Your task to perform on an android device: toggle translation in the chrome app Image 0: 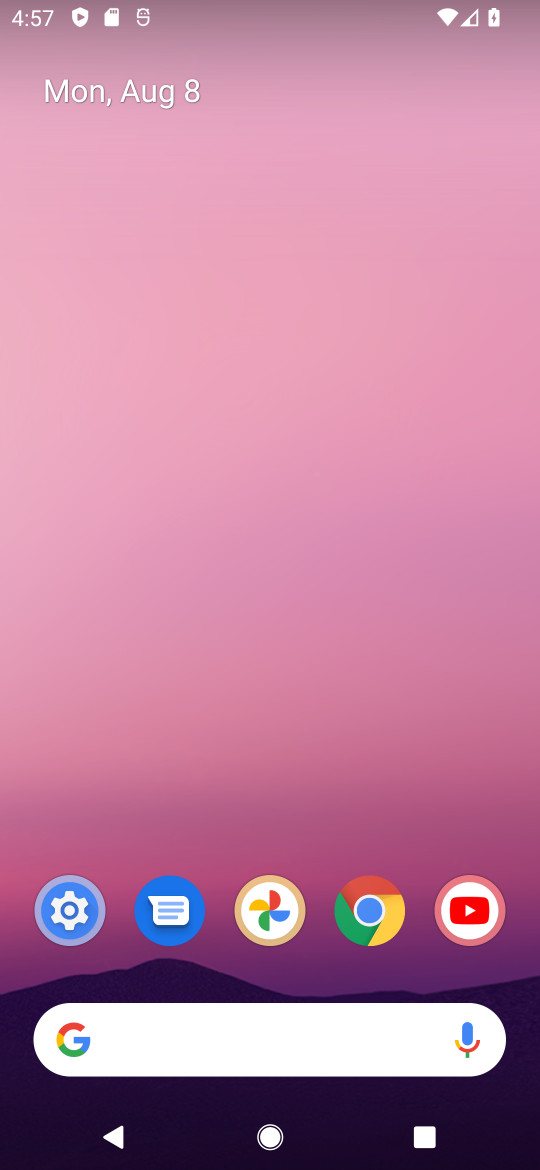
Step 0: click (372, 910)
Your task to perform on an android device: toggle translation in the chrome app Image 1: 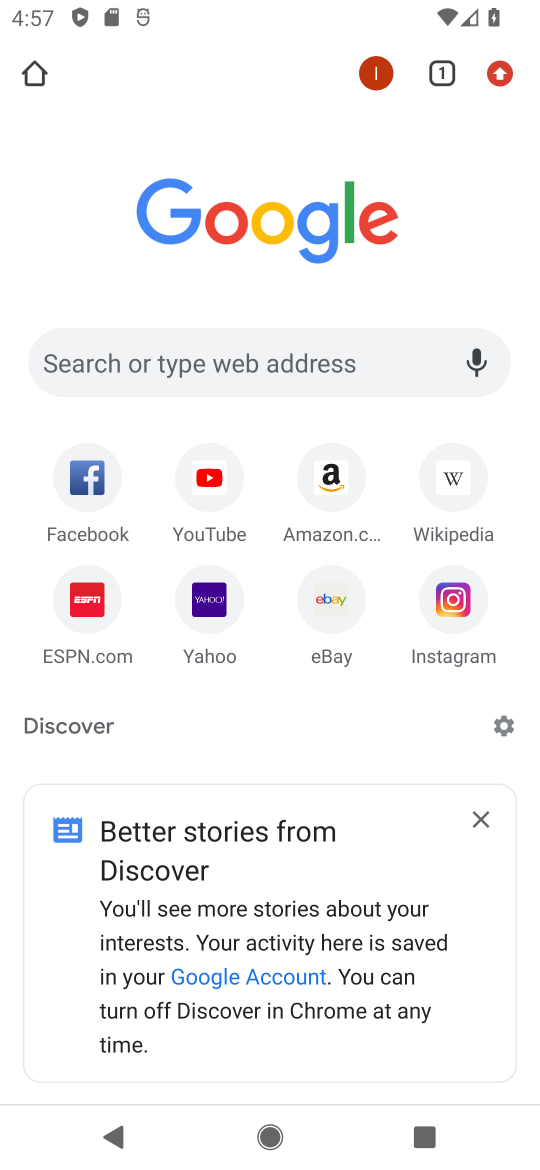
Step 1: click (496, 75)
Your task to perform on an android device: toggle translation in the chrome app Image 2: 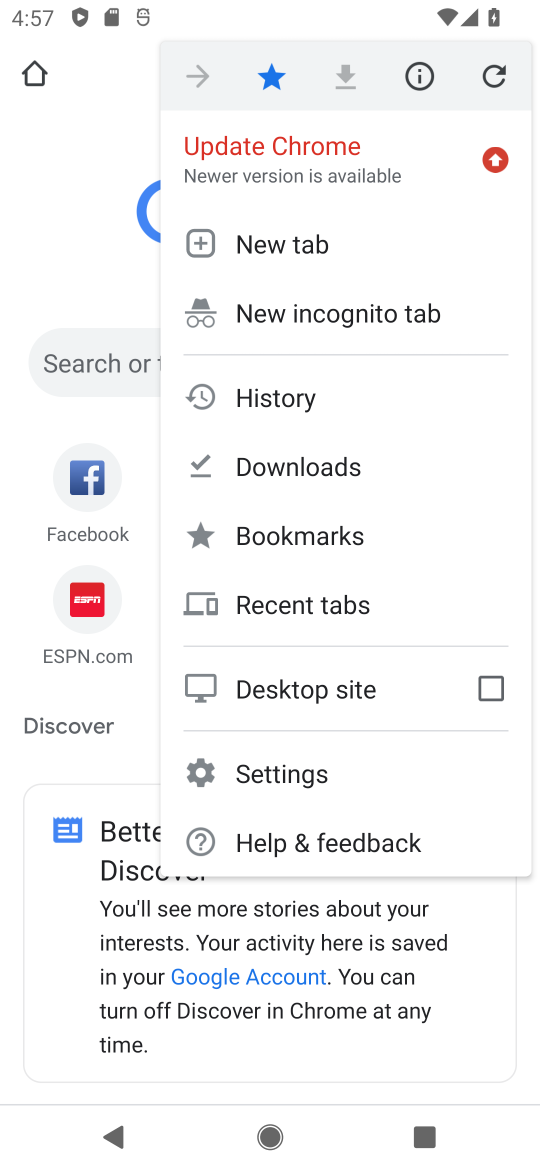
Step 2: click (306, 771)
Your task to perform on an android device: toggle translation in the chrome app Image 3: 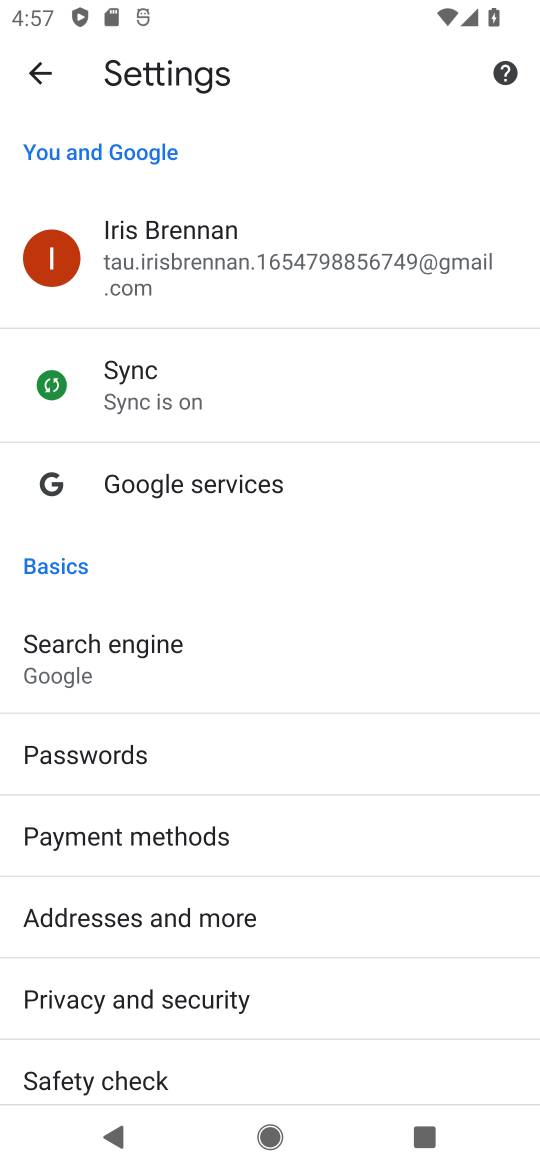
Step 3: drag from (203, 979) to (326, 812)
Your task to perform on an android device: toggle translation in the chrome app Image 4: 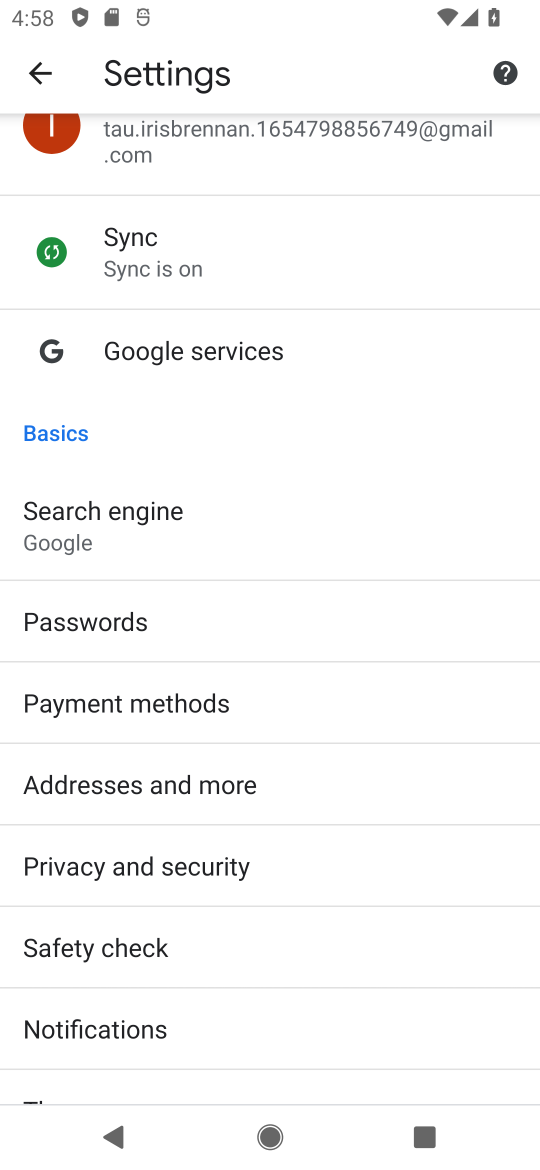
Step 4: drag from (174, 952) to (241, 801)
Your task to perform on an android device: toggle translation in the chrome app Image 5: 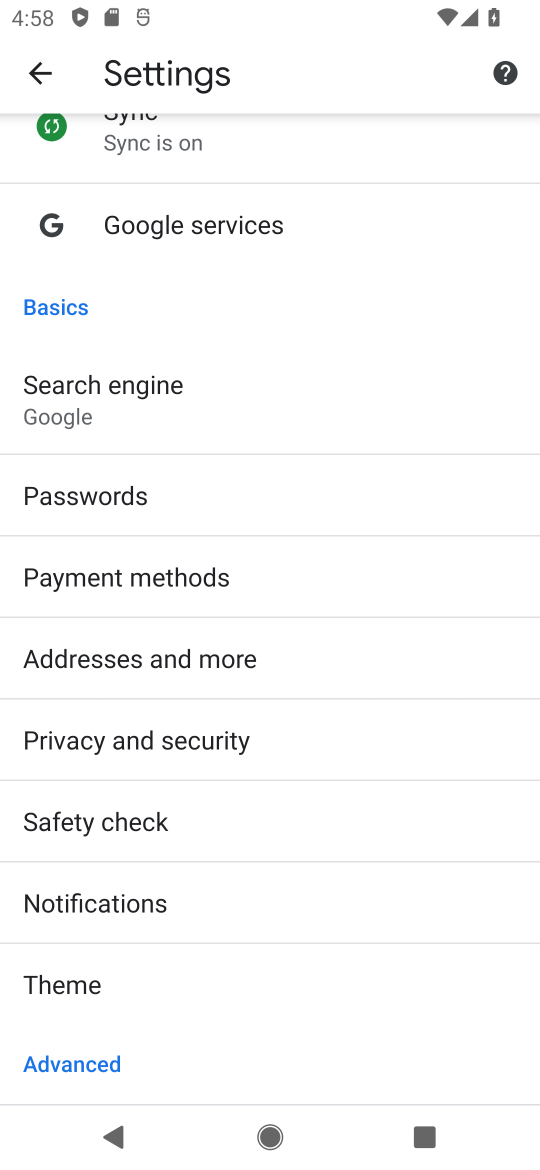
Step 5: drag from (184, 973) to (287, 807)
Your task to perform on an android device: toggle translation in the chrome app Image 6: 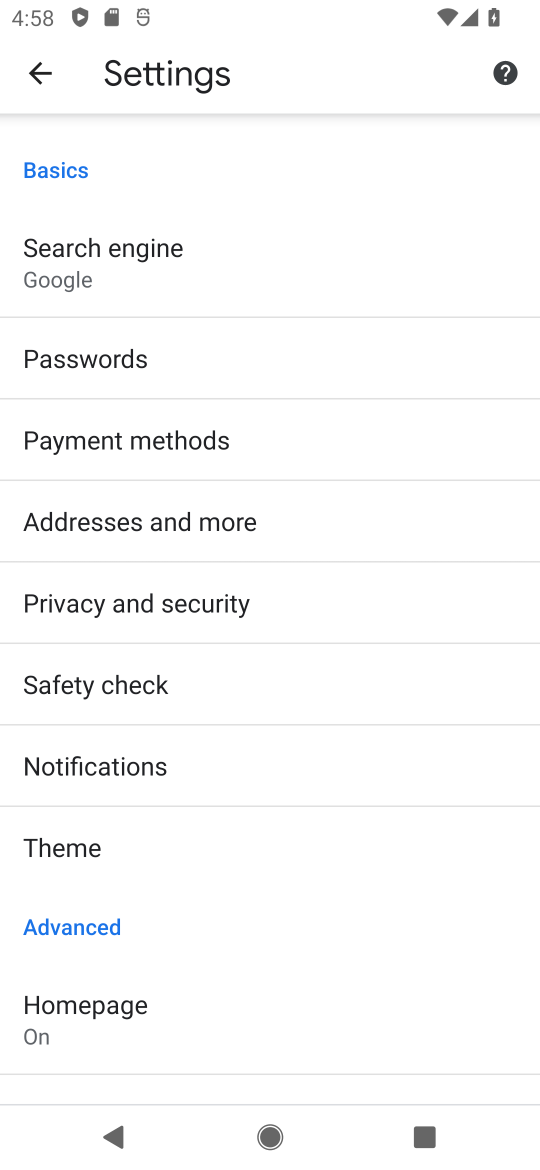
Step 6: drag from (141, 990) to (204, 859)
Your task to perform on an android device: toggle translation in the chrome app Image 7: 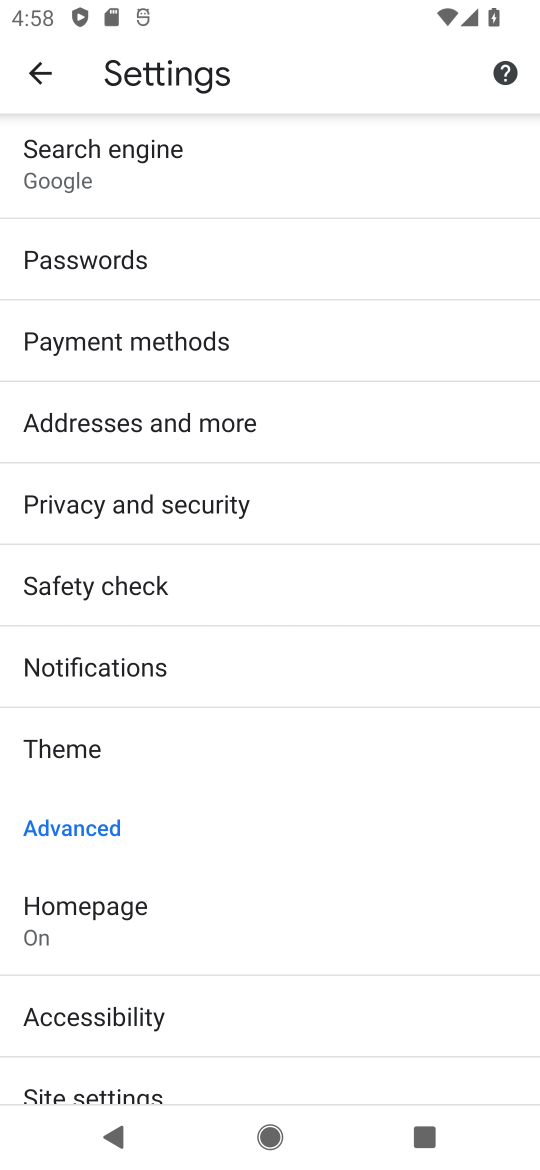
Step 7: drag from (215, 1020) to (313, 877)
Your task to perform on an android device: toggle translation in the chrome app Image 8: 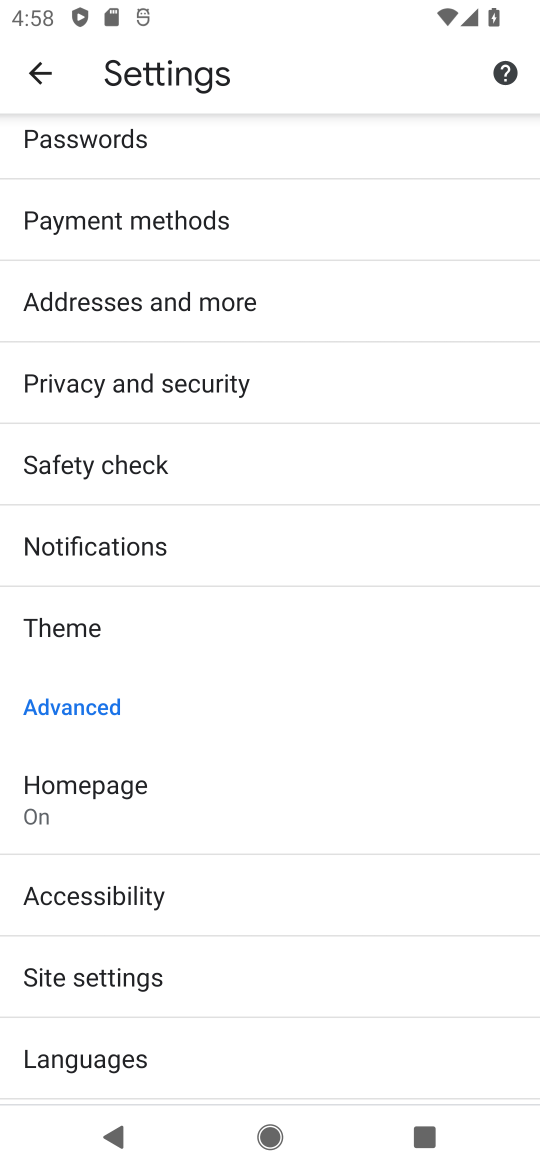
Step 8: click (98, 1060)
Your task to perform on an android device: toggle translation in the chrome app Image 9: 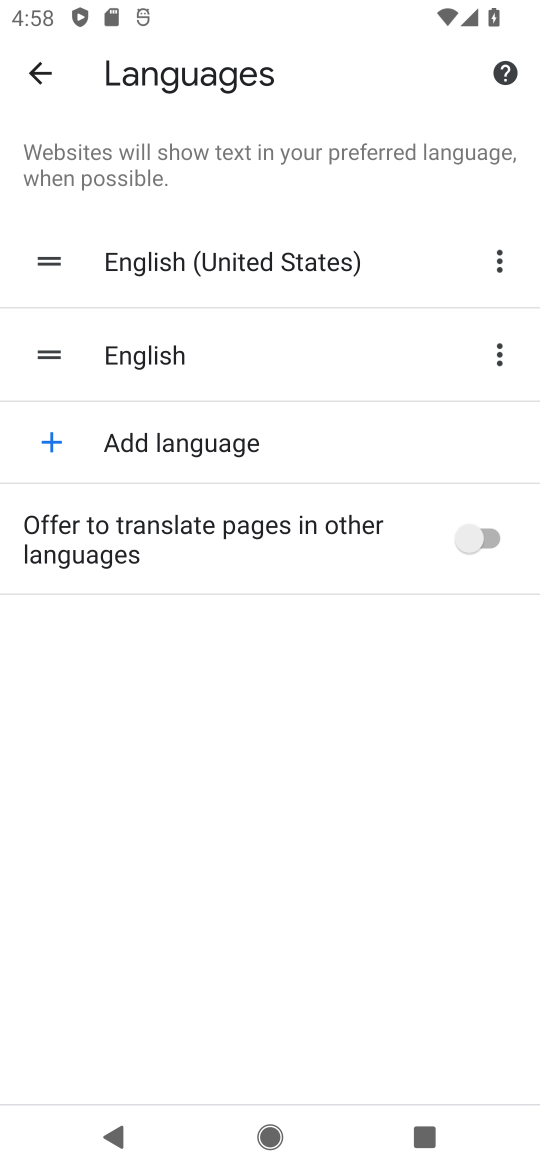
Step 9: click (472, 539)
Your task to perform on an android device: toggle translation in the chrome app Image 10: 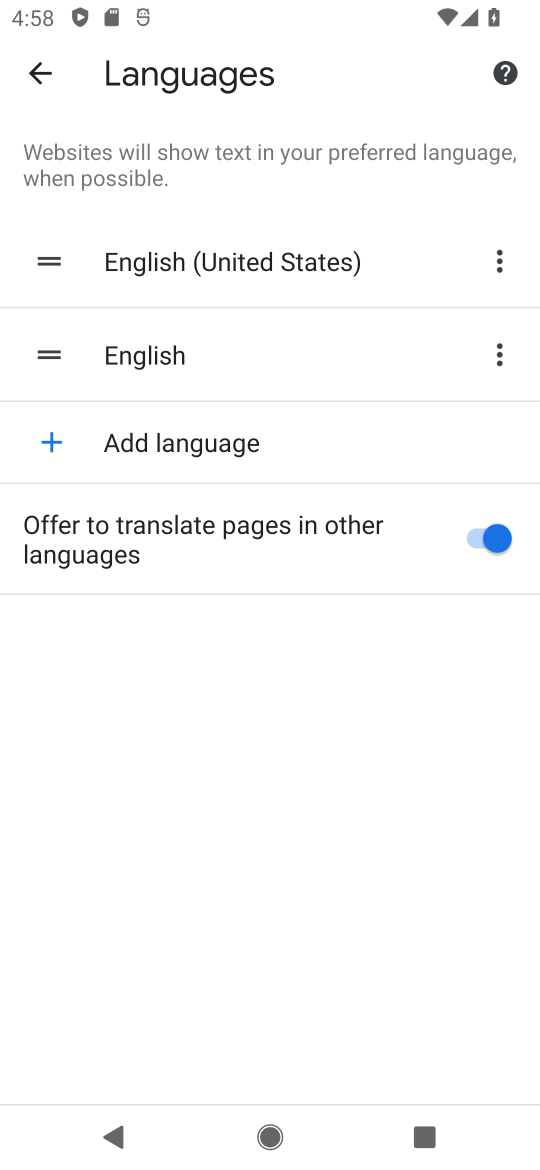
Step 10: task complete